Your task to perform on an android device: Open privacy settings Image 0: 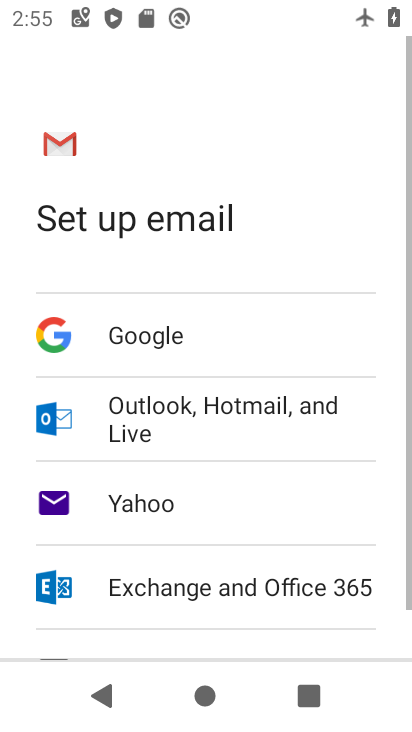
Step 0: press home button
Your task to perform on an android device: Open privacy settings Image 1: 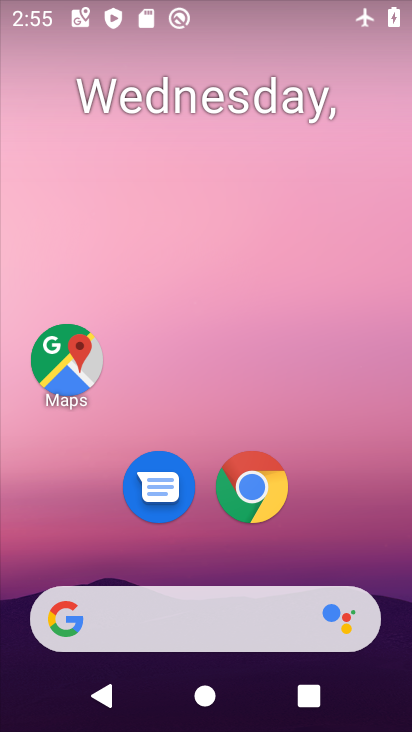
Step 1: drag from (311, 533) to (320, 17)
Your task to perform on an android device: Open privacy settings Image 2: 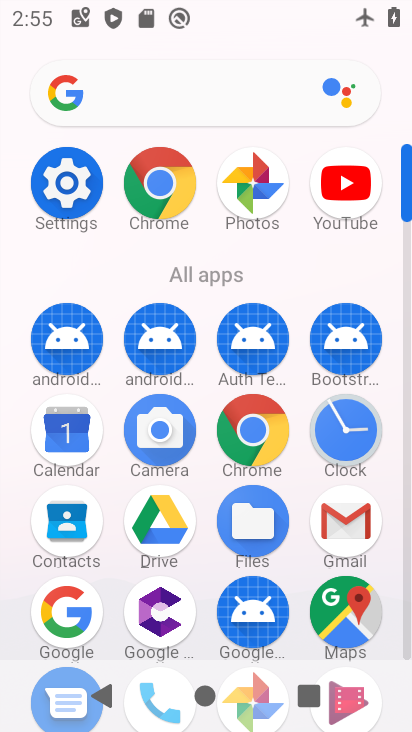
Step 2: click (89, 171)
Your task to perform on an android device: Open privacy settings Image 3: 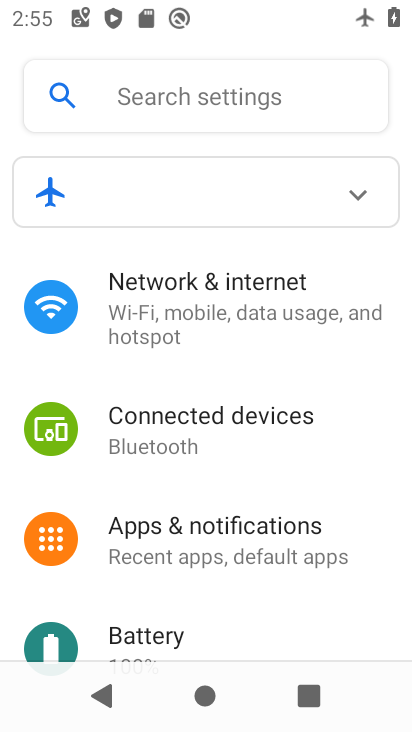
Step 3: drag from (260, 440) to (272, 74)
Your task to perform on an android device: Open privacy settings Image 4: 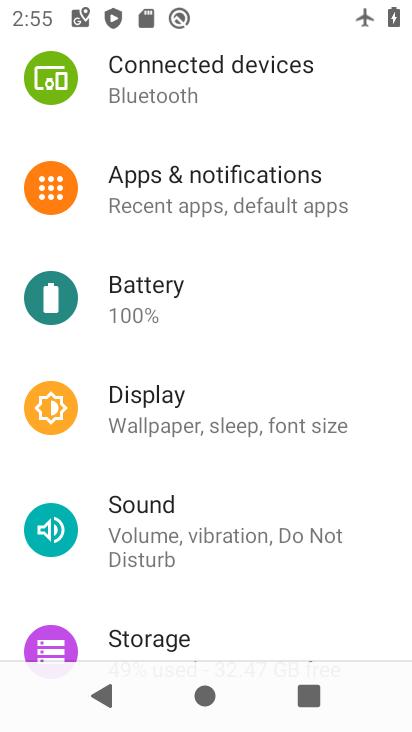
Step 4: drag from (250, 482) to (255, 48)
Your task to perform on an android device: Open privacy settings Image 5: 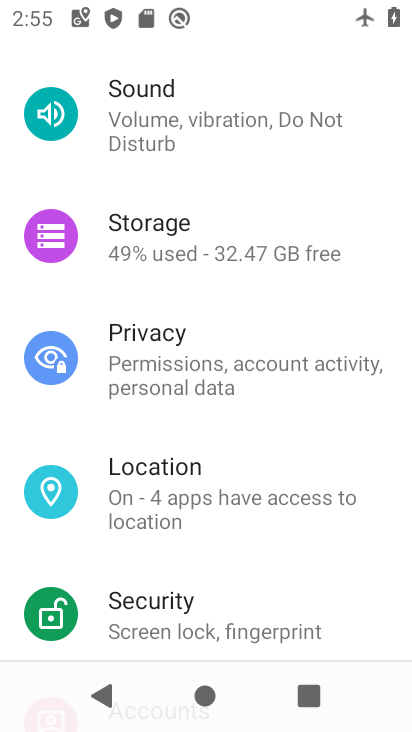
Step 5: click (234, 362)
Your task to perform on an android device: Open privacy settings Image 6: 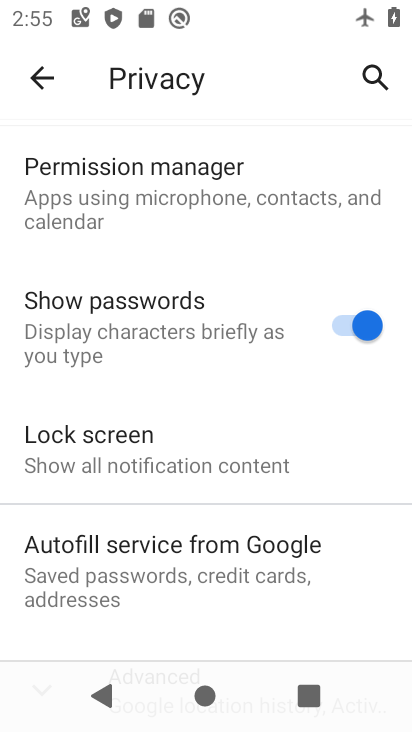
Step 6: task complete